Your task to perform on an android device: check storage Image 0: 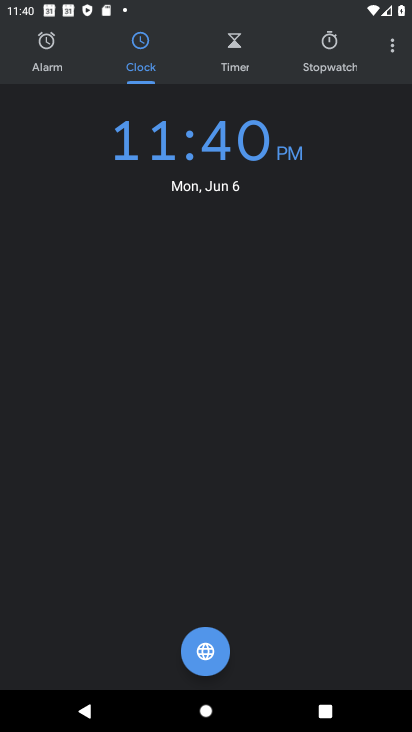
Step 0: press back button
Your task to perform on an android device: check storage Image 1: 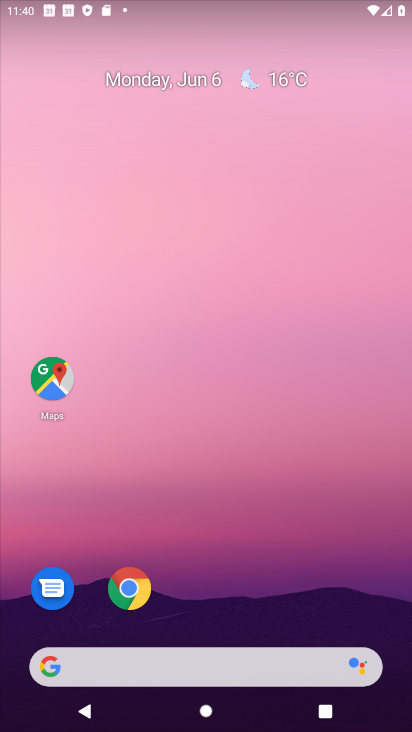
Step 1: drag from (279, 587) to (209, 180)
Your task to perform on an android device: check storage Image 2: 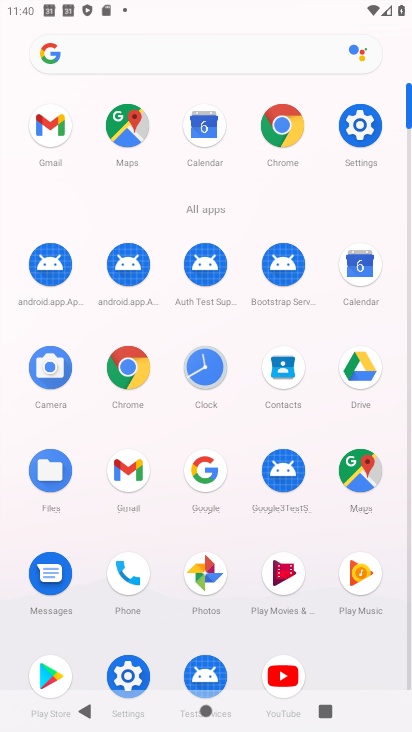
Step 2: click (360, 126)
Your task to perform on an android device: check storage Image 3: 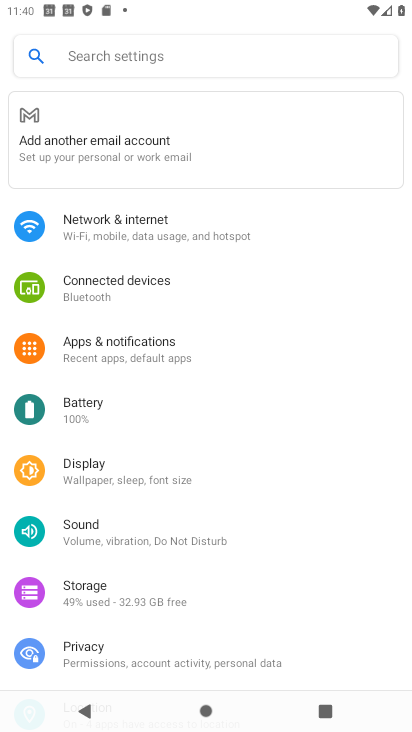
Step 3: click (169, 600)
Your task to perform on an android device: check storage Image 4: 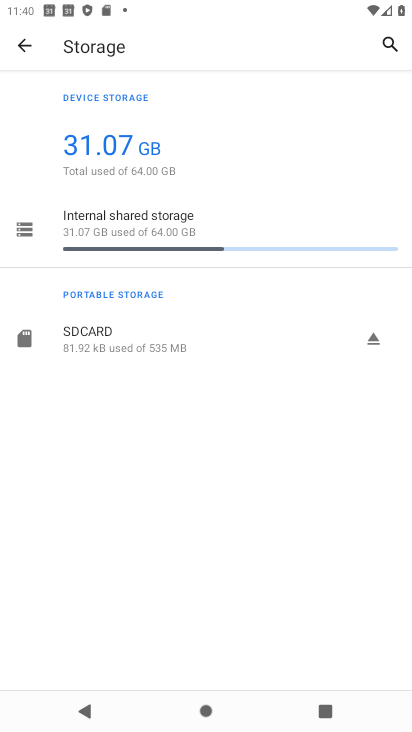
Step 4: task complete